Your task to perform on an android device: Open Google Image 0: 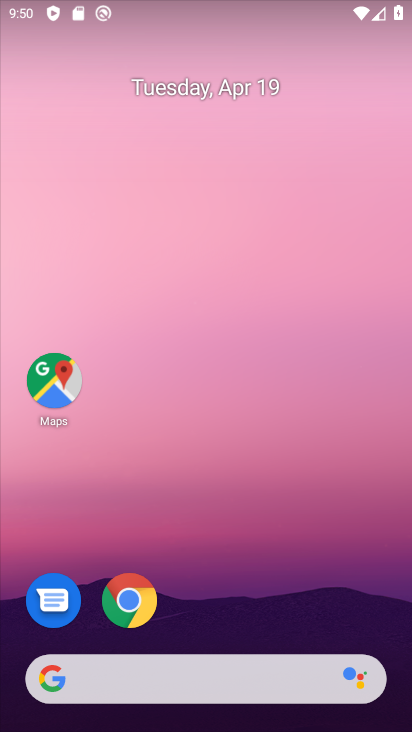
Step 0: drag from (303, 223) to (273, 92)
Your task to perform on an android device: Open Google Image 1: 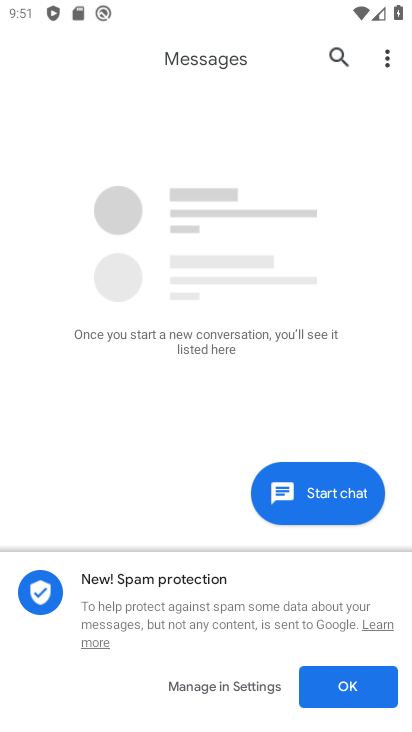
Step 1: press home button
Your task to perform on an android device: Open Google Image 2: 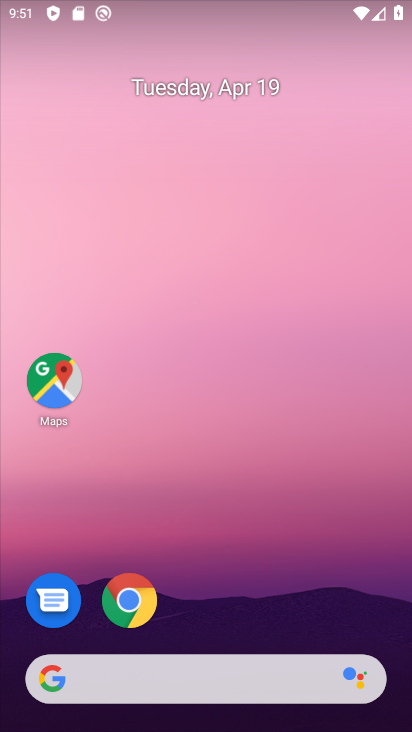
Step 2: drag from (263, 604) to (219, 59)
Your task to perform on an android device: Open Google Image 3: 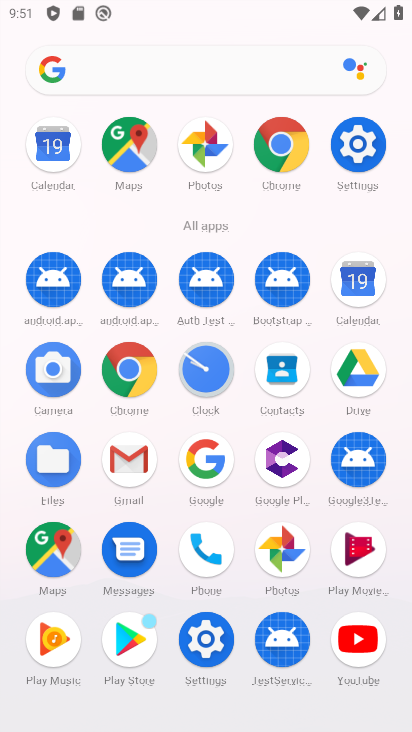
Step 3: click (205, 460)
Your task to perform on an android device: Open Google Image 4: 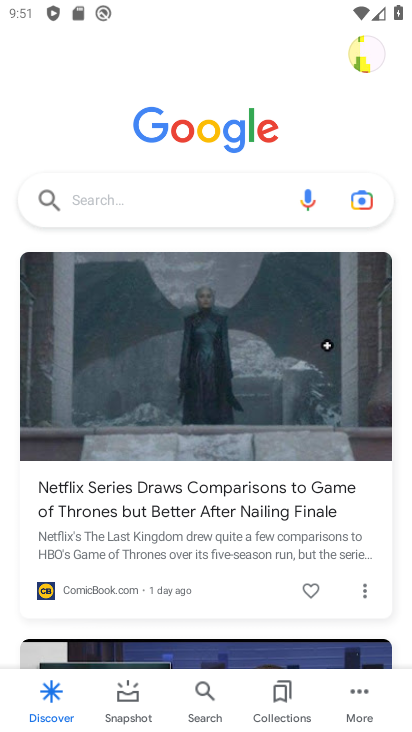
Step 4: task complete